Your task to perform on an android device: change the clock display to analog Image 0: 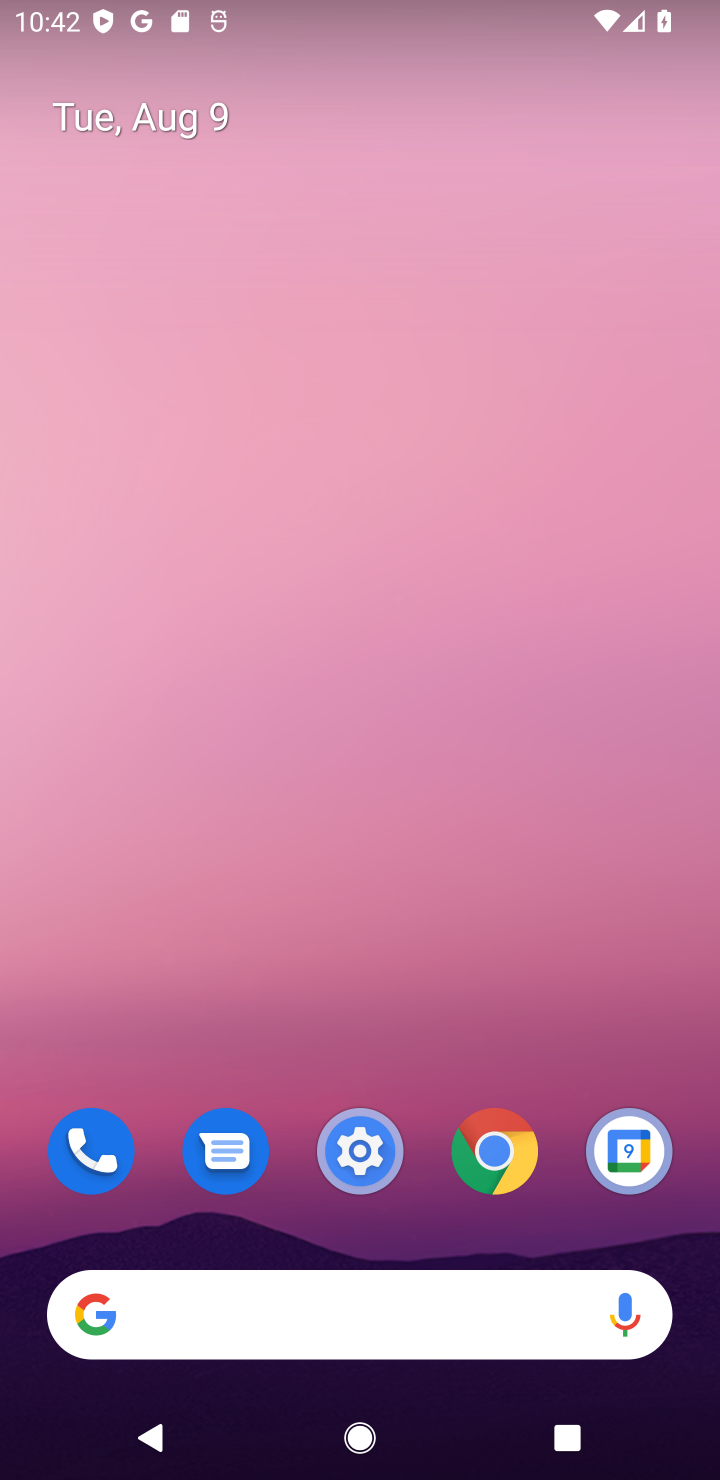
Step 0: drag from (447, 1072) to (495, 336)
Your task to perform on an android device: change the clock display to analog Image 1: 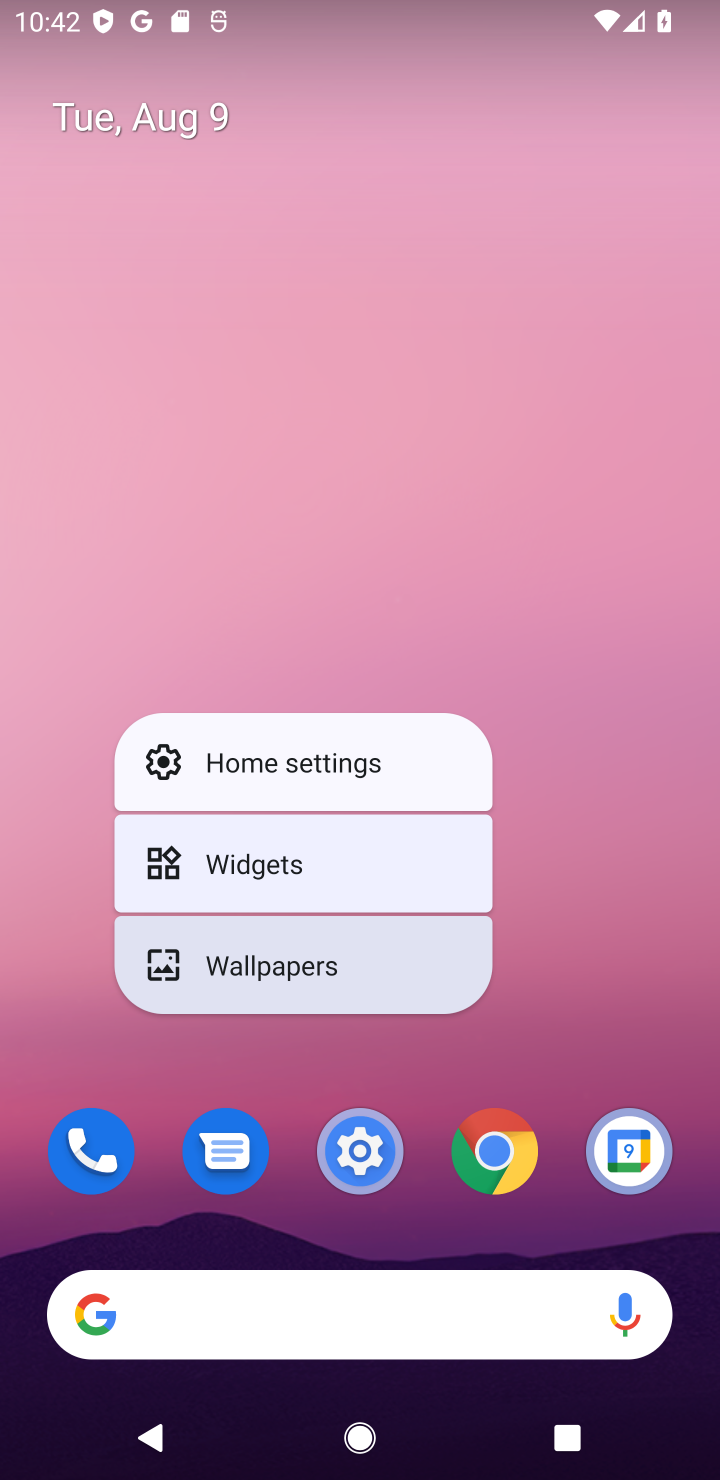
Step 1: click (546, 500)
Your task to perform on an android device: change the clock display to analog Image 2: 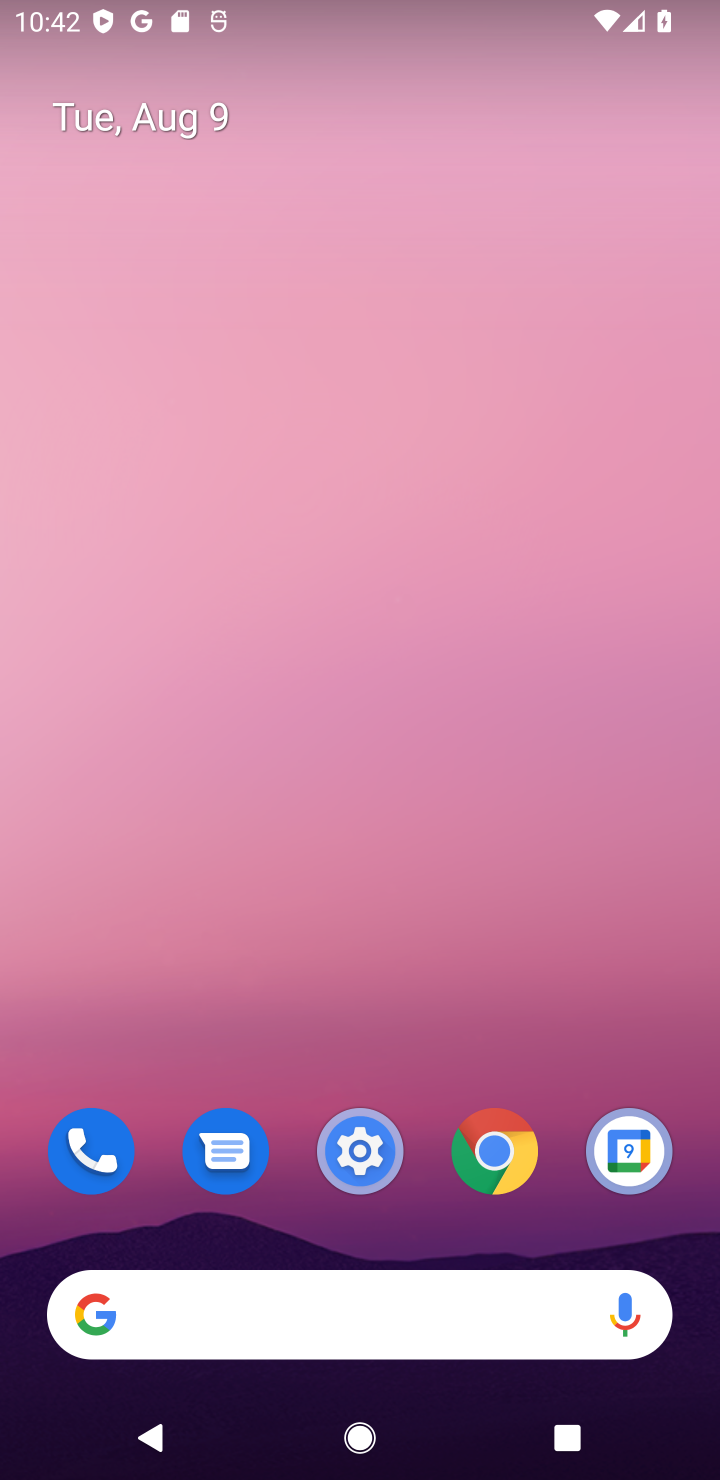
Step 2: drag from (629, 1058) to (571, 282)
Your task to perform on an android device: change the clock display to analog Image 3: 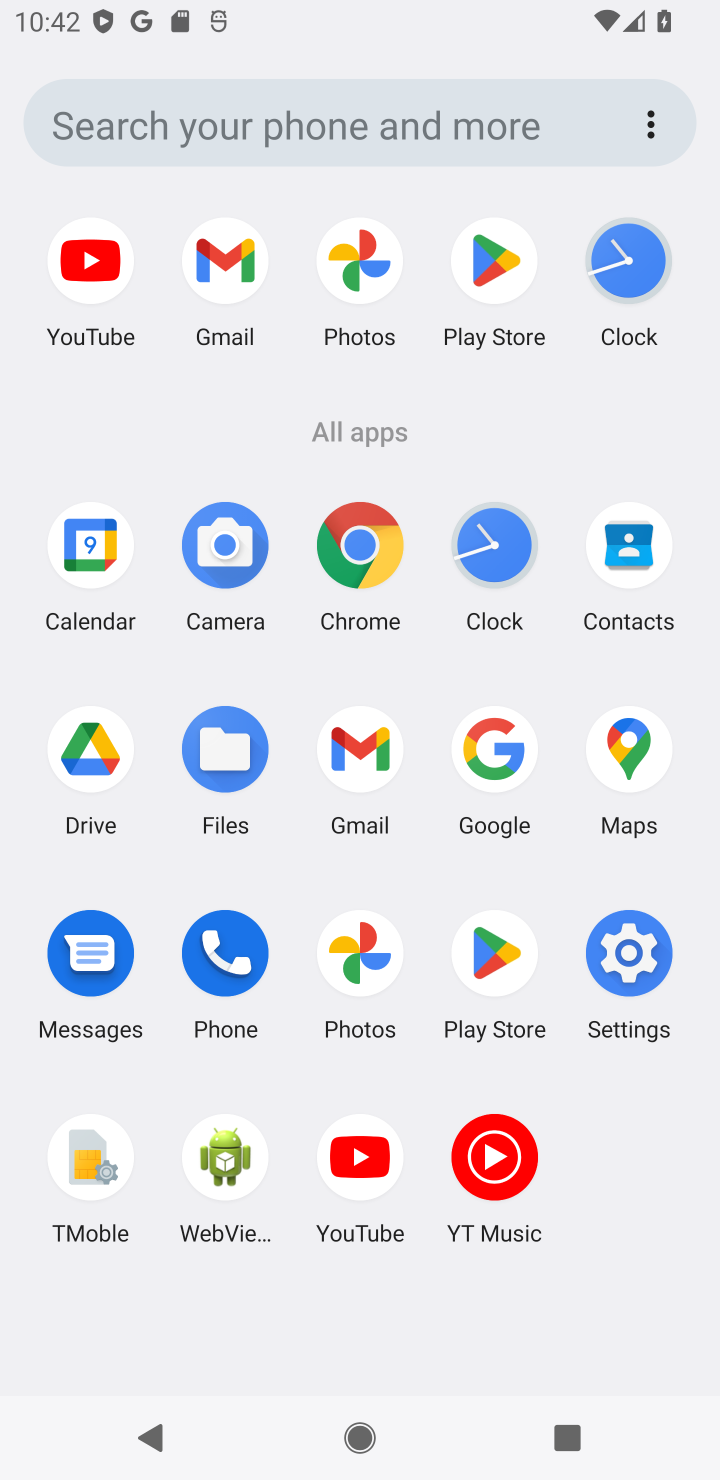
Step 3: click (489, 534)
Your task to perform on an android device: change the clock display to analog Image 4: 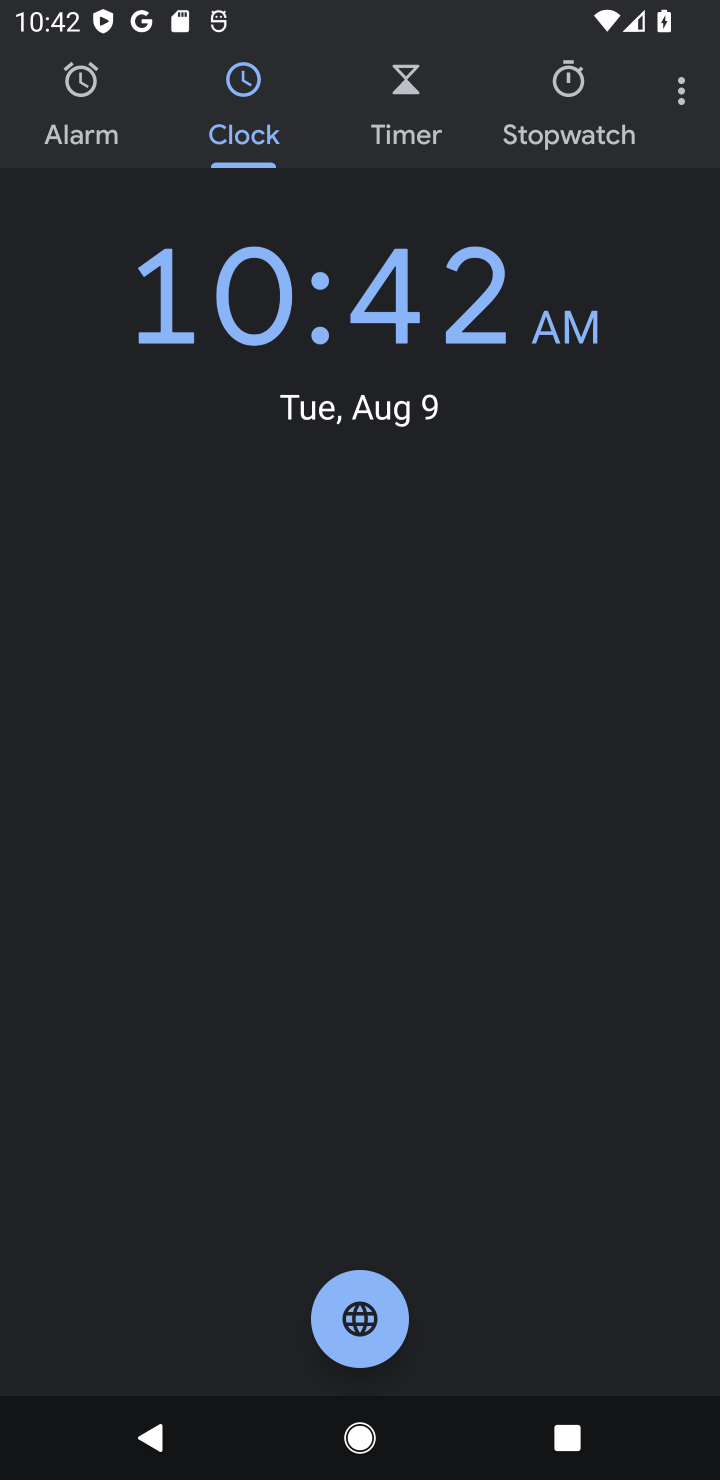
Step 4: click (692, 103)
Your task to perform on an android device: change the clock display to analog Image 5: 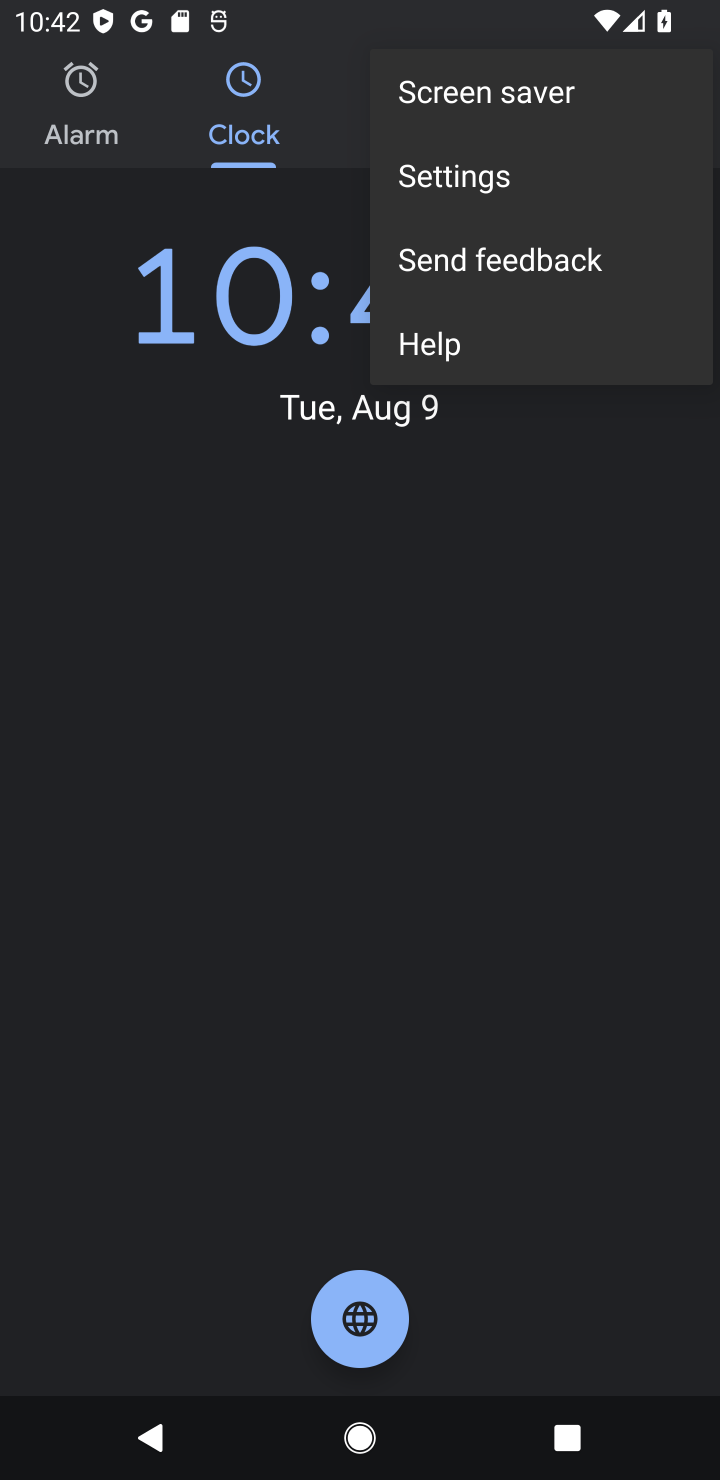
Step 5: click (477, 170)
Your task to perform on an android device: change the clock display to analog Image 6: 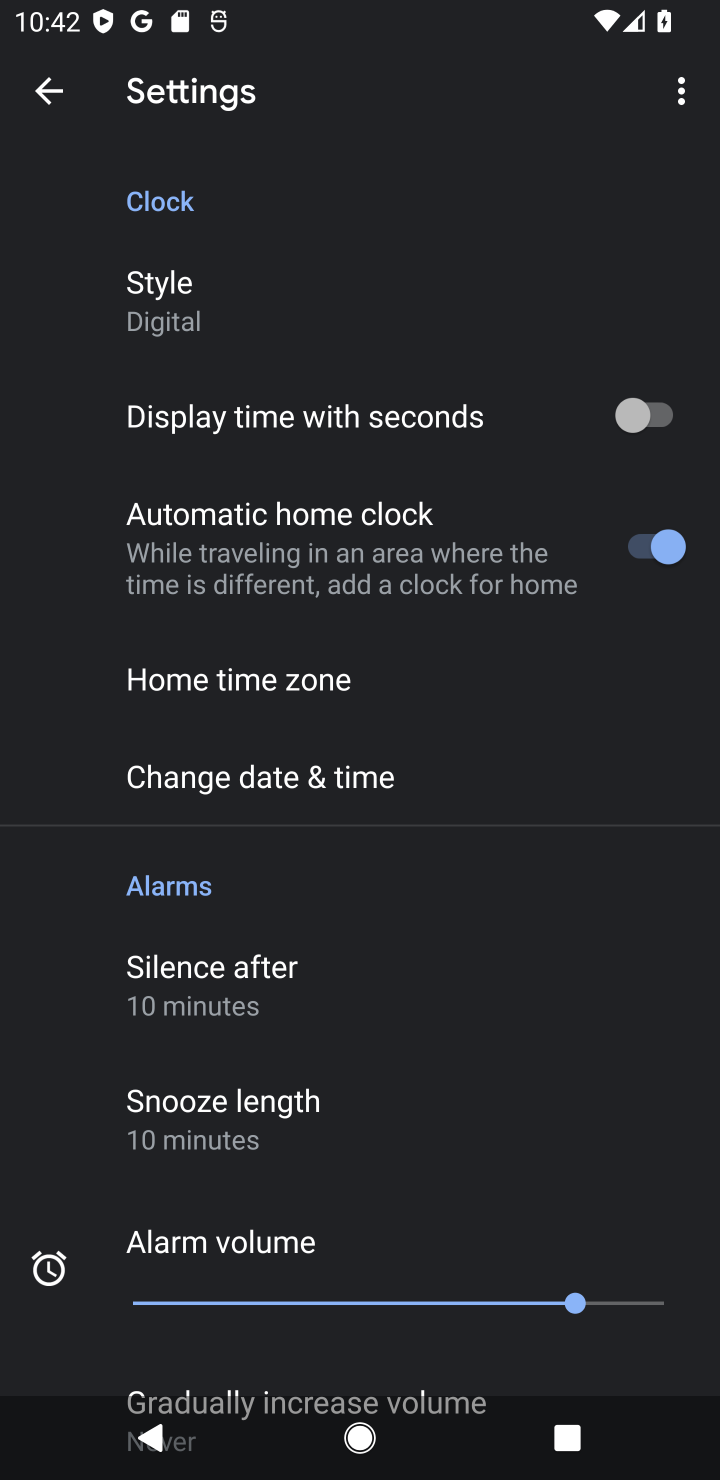
Step 6: click (270, 299)
Your task to perform on an android device: change the clock display to analog Image 7: 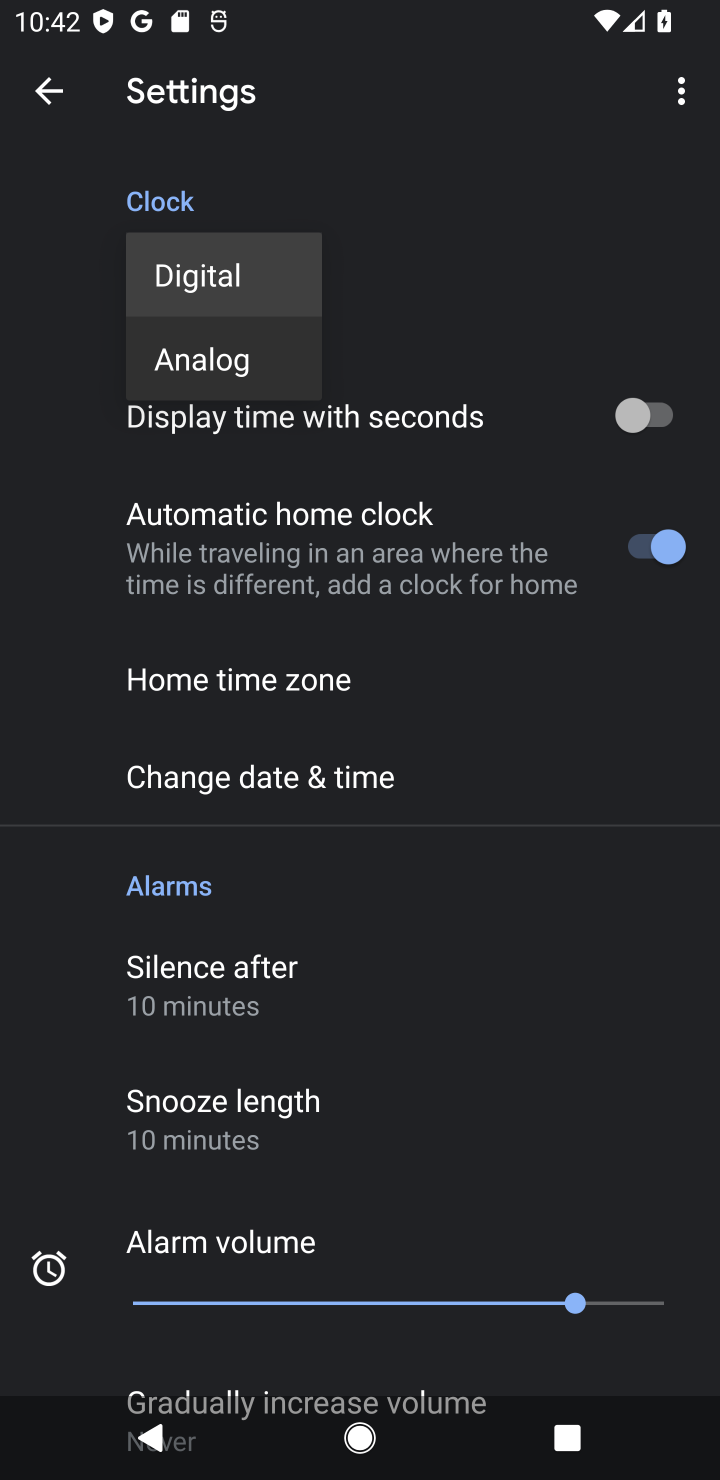
Step 7: click (228, 370)
Your task to perform on an android device: change the clock display to analog Image 8: 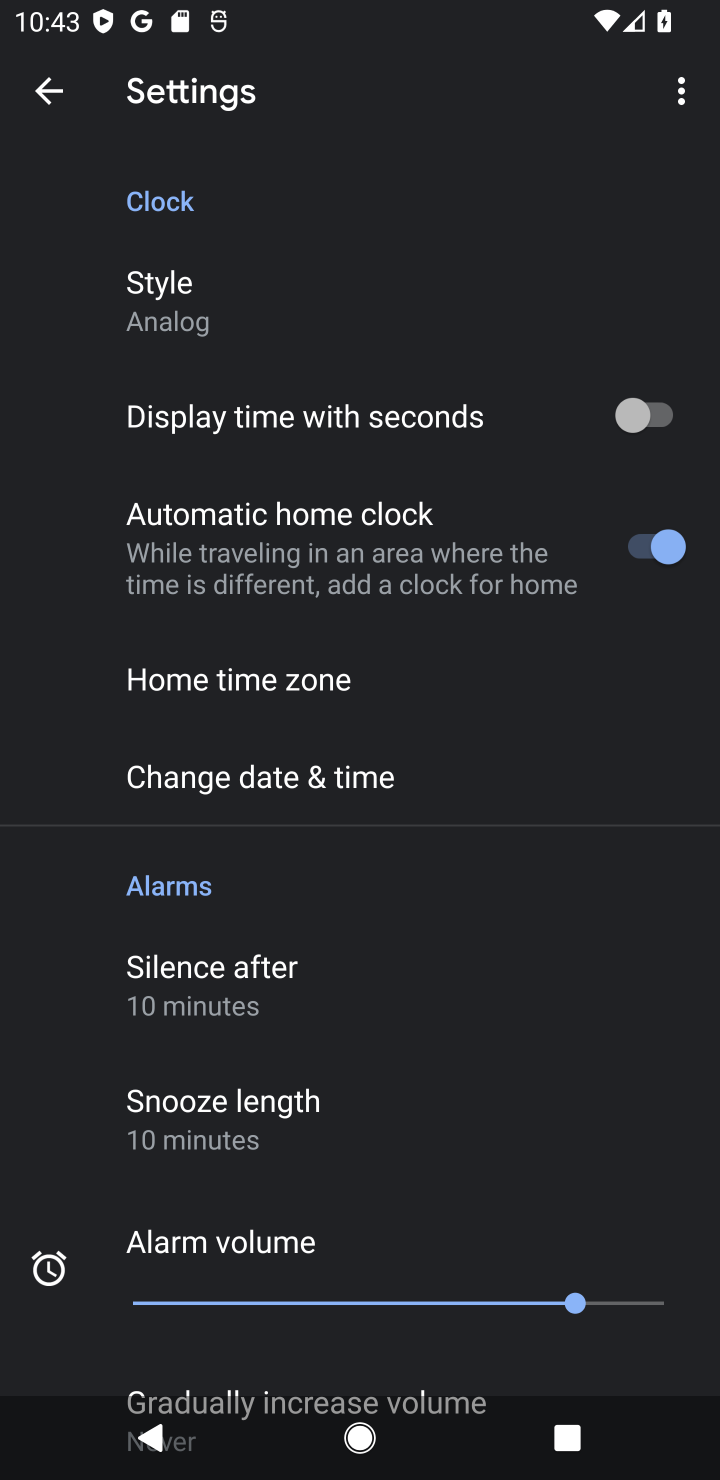
Step 8: task complete